Your task to perform on an android device: Open Chrome and go to the settings page Image 0: 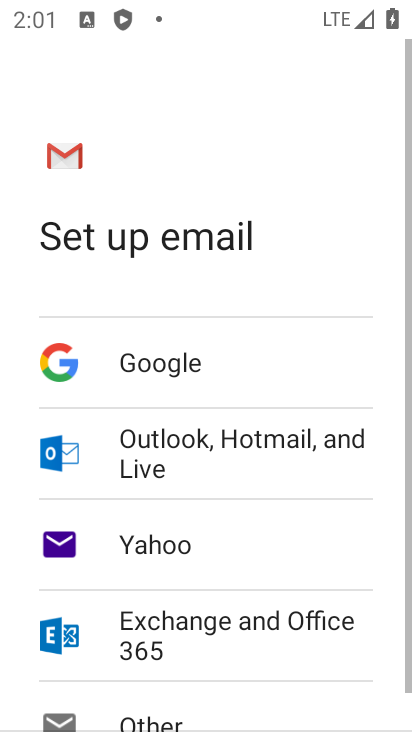
Step 0: press home button
Your task to perform on an android device: Open Chrome and go to the settings page Image 1: 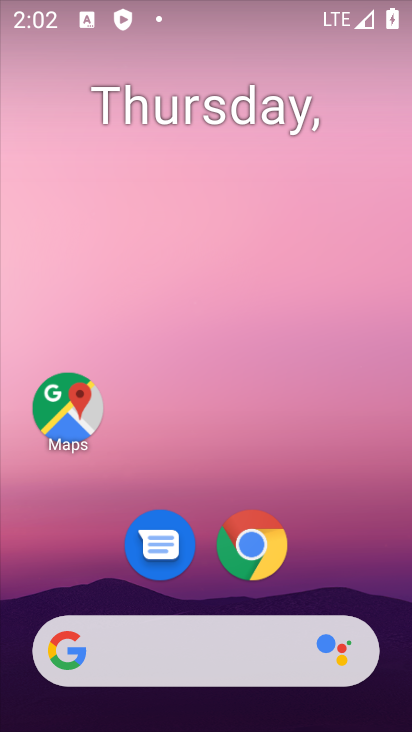
Step 1: drag from (221, 659) to (195, 44)
Your task to perform on an android device: Open Chrome and go to the settings page Image 2: 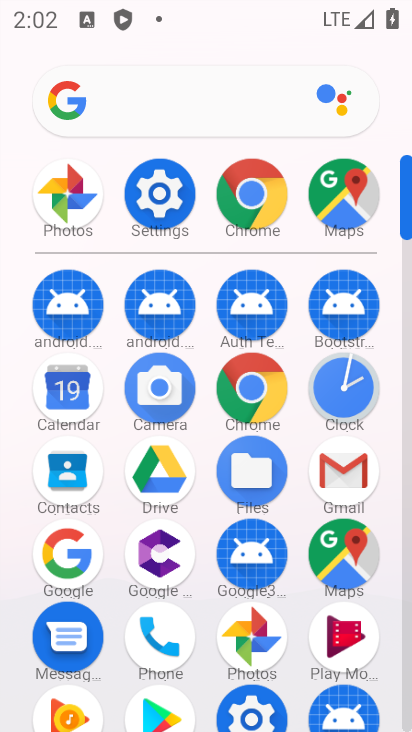
Step 2: click (246, 385)
Your task to perform on an android device: Open Chrome and go to the settings page Image 3: 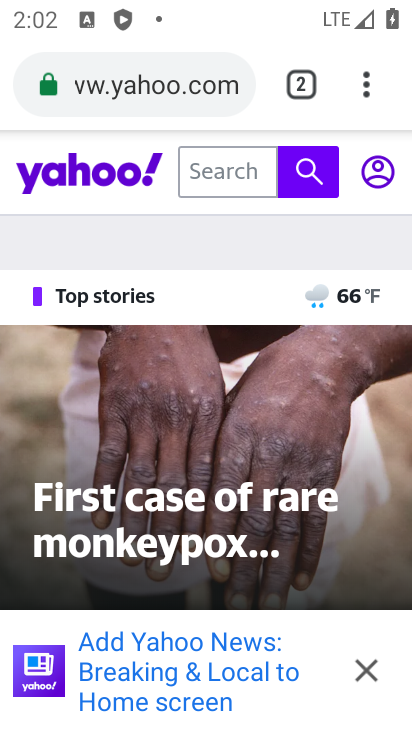
Step 3: click (377, 90)
Your task to perform on an android device: Open Chrome and go to the settings page Image 4: 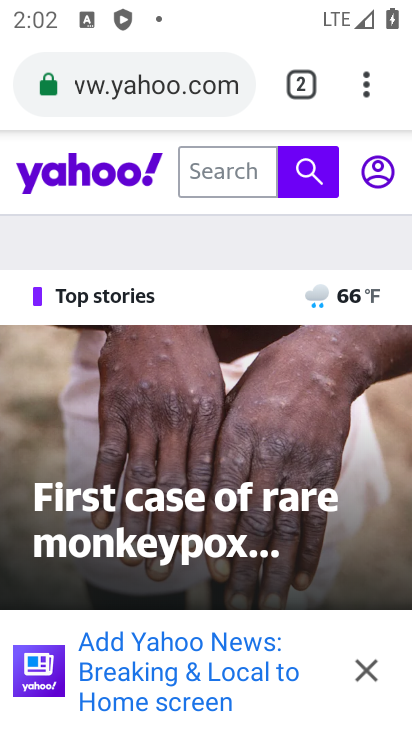
Step 4: click (359, 90)
Your task to perform on an android device: Open Chrome and go to the settings page Image 5: 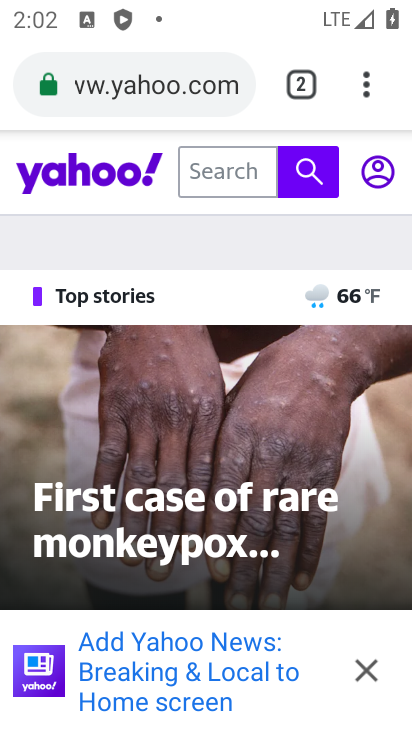
Step 5: task complete